Your task to perform on an android device: Open Android settings Image 0: 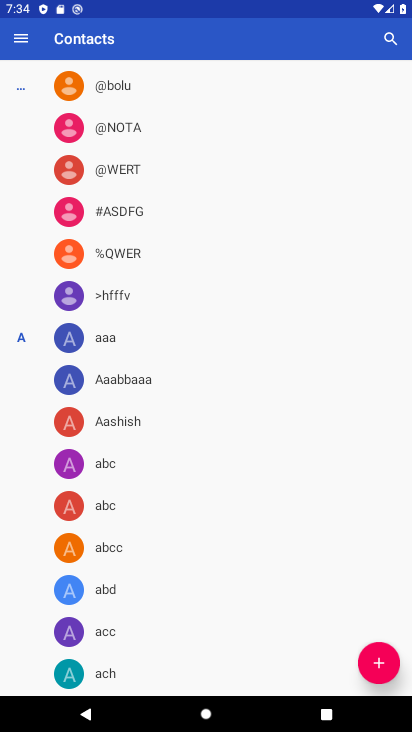
Step 0: press home button
Your task to perform on an android device: Open Android settings Image 1: 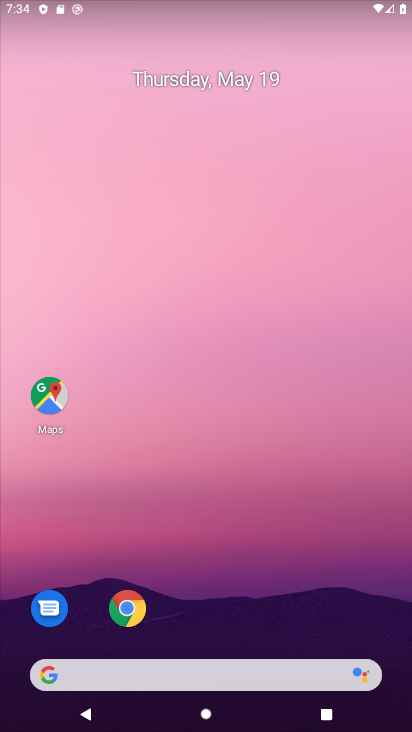
Step 1: drag from (386, 652) to (311, 97)
Your task to perform on an android device: Open Android settings Image 2: 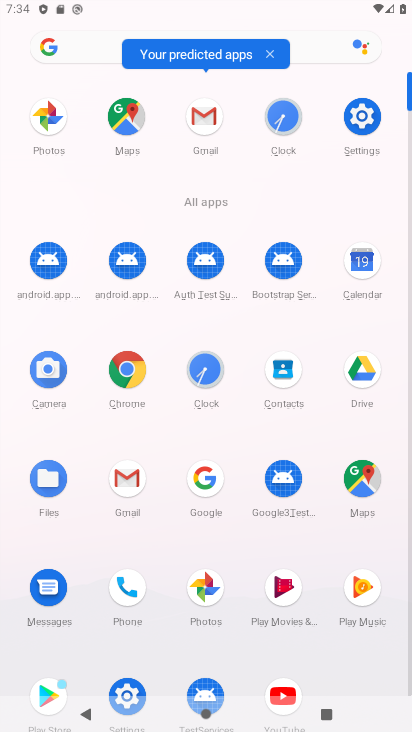
Step 2: click (364, 118)
Your task to perform on an android device: Open Android settings Image 3: 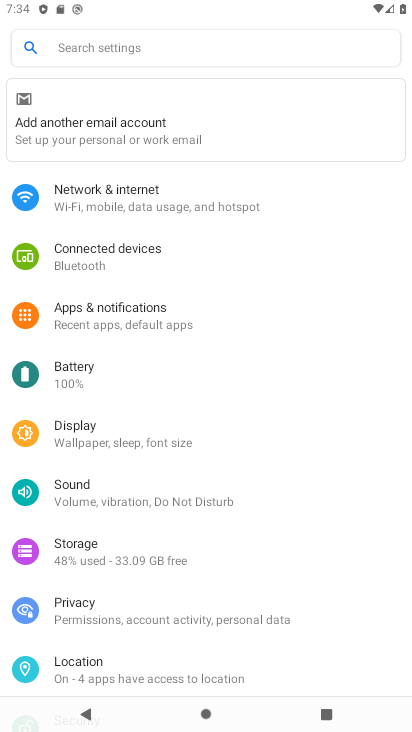
Step 3: task complete